Your task to perform on an android device: Show the shopping cart on costco.com. Search for rayovac triple a on costco.com, select the first entry, and add it to the cart. Image 0: 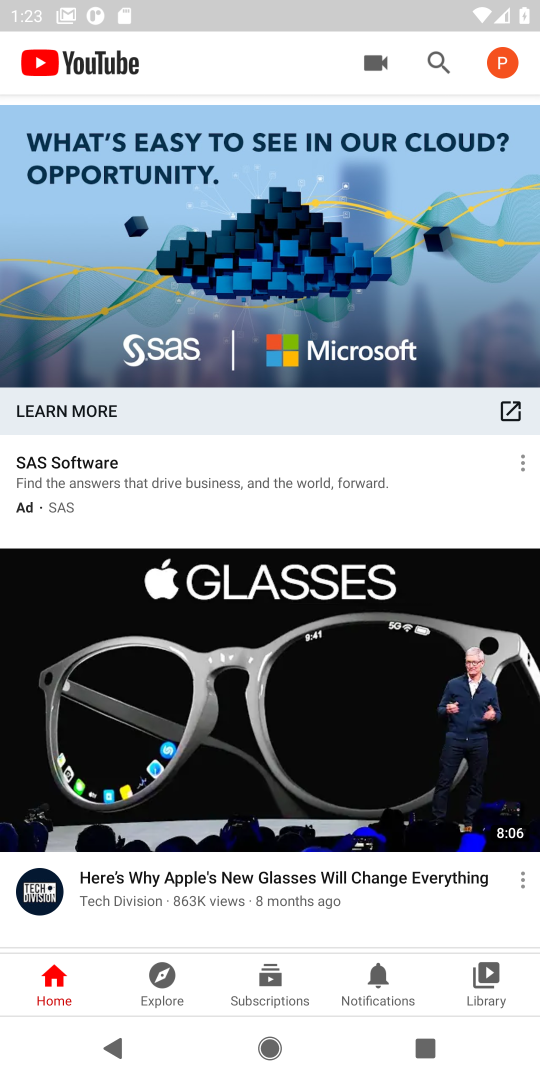
Step 0: press home button
Your task to perform on an android device: Show the shopping cart on costco.com. Search for rayovac triple a on costco.com, select the first entry, and add it to the cart. Image 1: 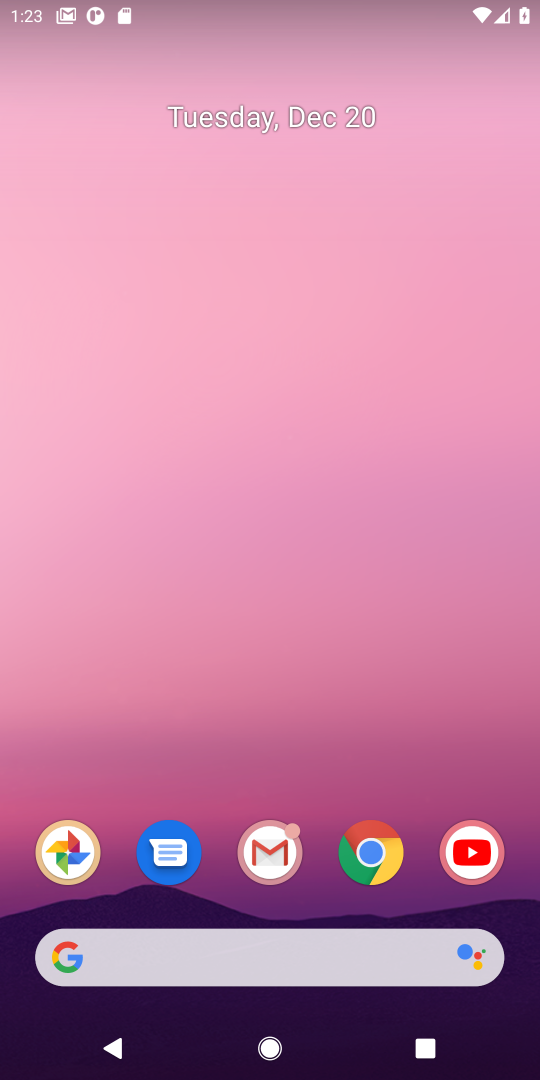
Step 1: click (367, 867)
Your task to perform on an android device: Show the shopping cart on costco.com. Search for rayovac triple a on costco.com, select the first entry, and add it to the cart. Image 2: 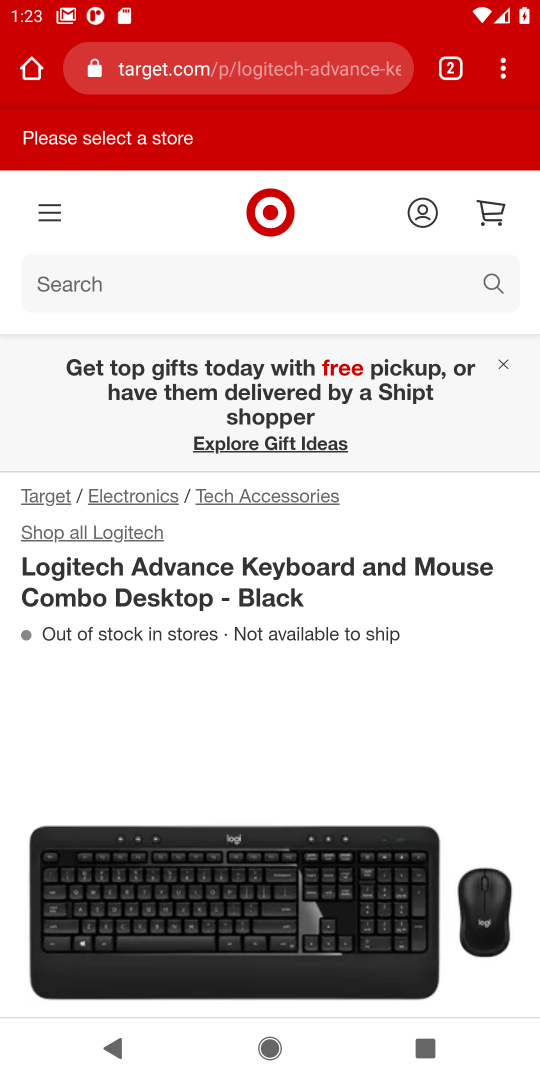
Step 2: click (210, 77)
Your task to perform on an android device: Show the shopping cart on costco.com. Search for rayovac triple a on costco.com, select the first entry, and add it to the cart. Image 3: 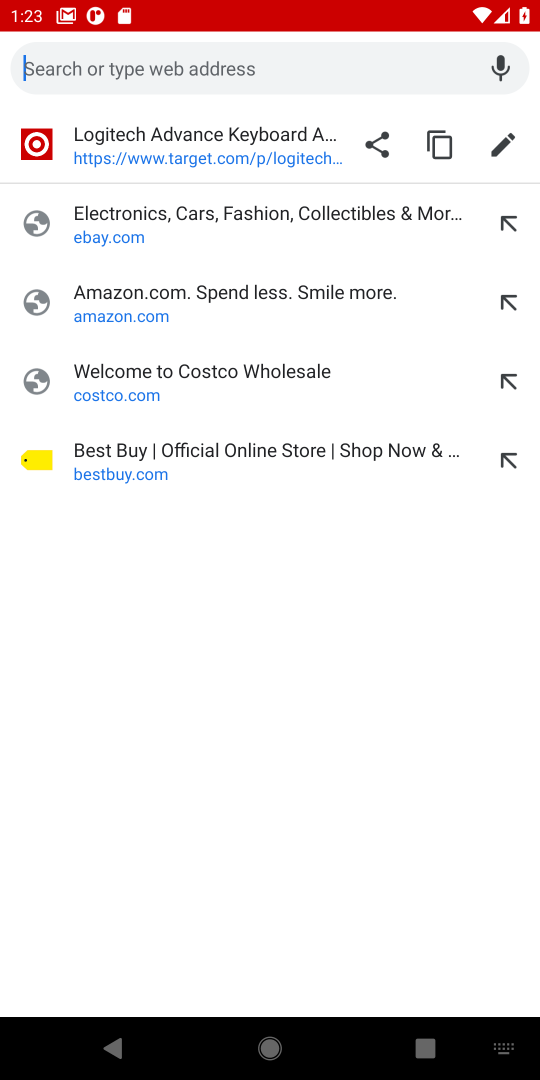
Step 3: click (121, 392)
Your task to perform on an android device: Show the shopping cart on costco.com. Search for rayovac triple a on costco.com, select the first entry, and add it to the cart. Image 4: 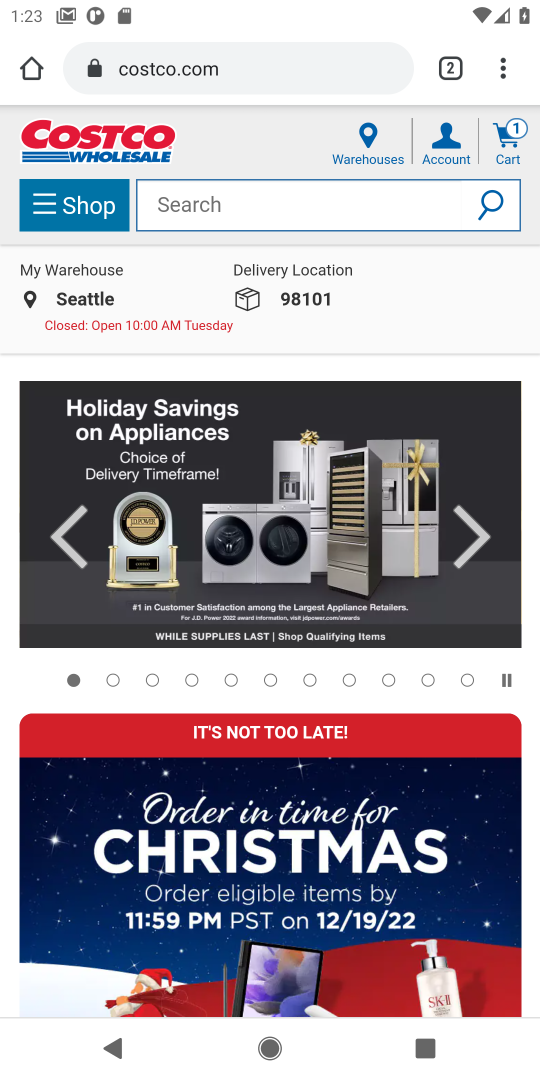
Step 4: click (504, 145)
Your task to perform on an android device: Show the shopping cart on costco.com. Search for rayovac triple a on costco.com, select the first entry, and add it to the cart. Image 5: 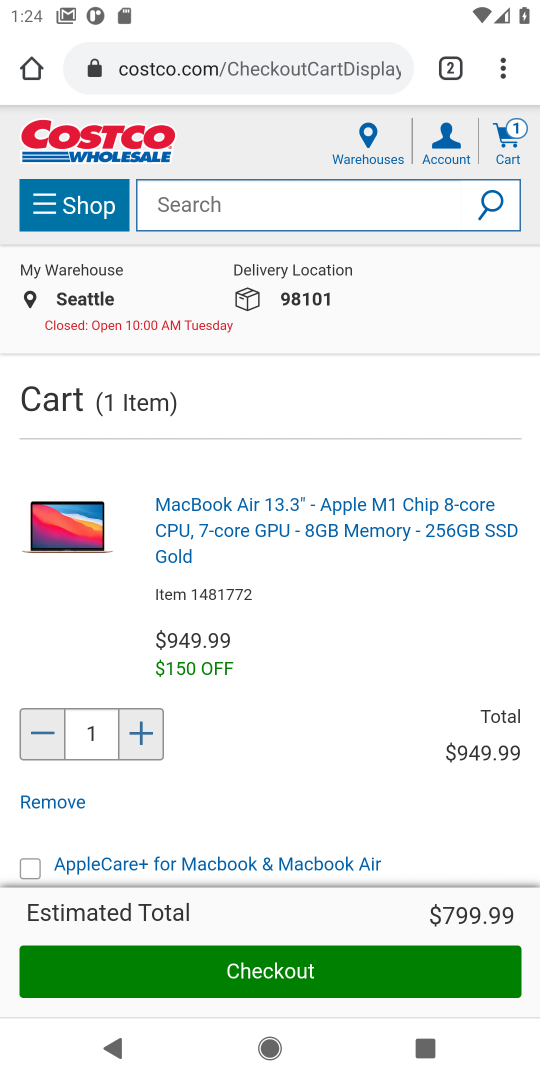
Step 5: click (260, 210)
Your task to perform on an android device: Show the shopping cart on costco.com. Search for rayovac triple a on costco.com, select the first entry, and add it to the cart. Image 6: 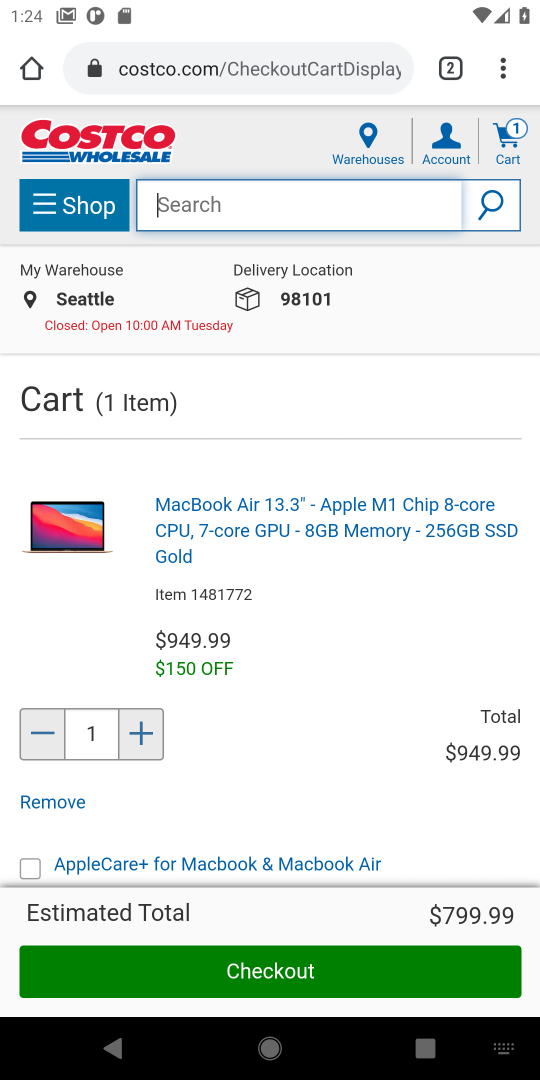
Step 6: type "rayovac triple a"
Your task to perform on an android device: Show the shopping cart on costco.com. Search for rayovac triple a on costco.com, select the first entry, and add it to the cart. Image 7: 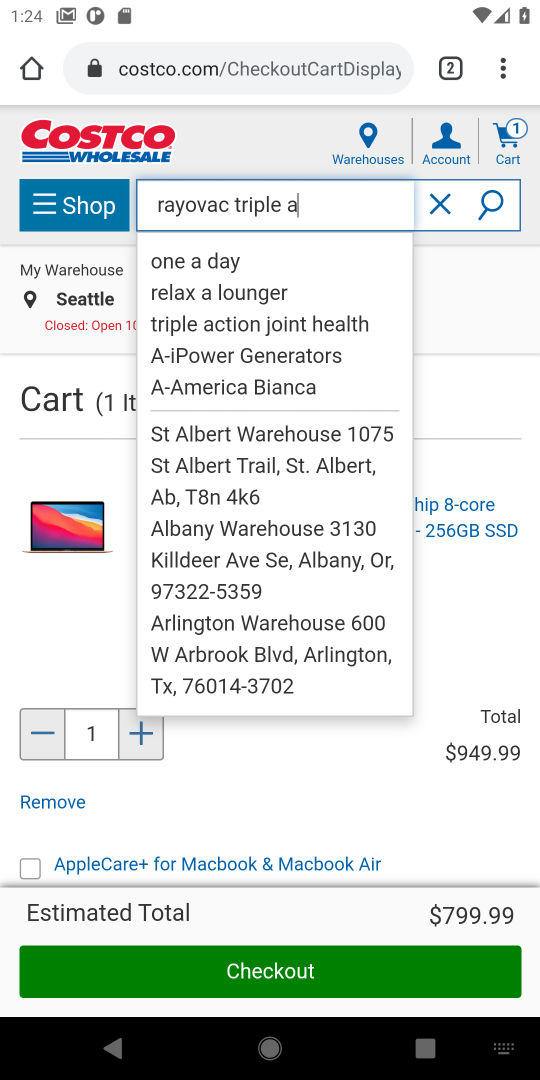
Step 7: click (491, 199)
Your task to perform on an android device: Show the shopping cart on costco.com. Search for rayovac triple a on costco.com, select the first entry, and add it to the cart. Image 8: 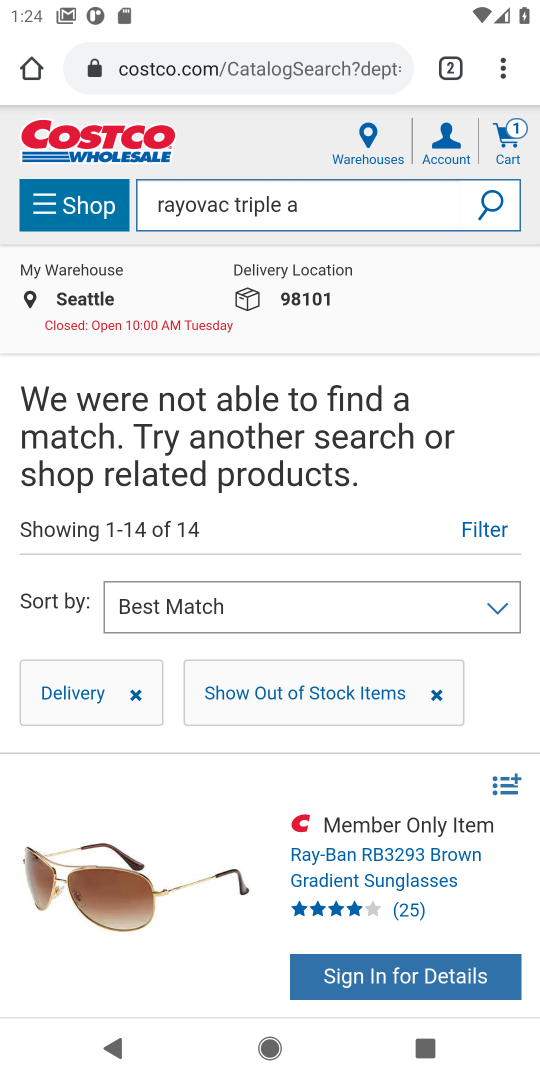
Step 8: task complete